Your task to perform on an android device: Go to CNN.com Image 0: 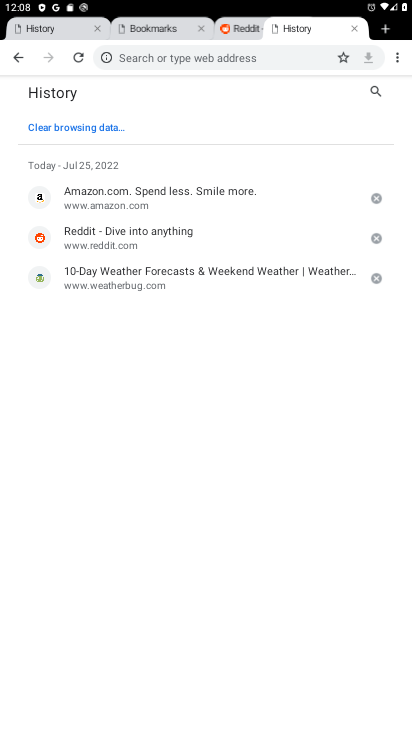
Step 0: press home button
Your task to perform on an android device: Go to CNN.com Image 1: 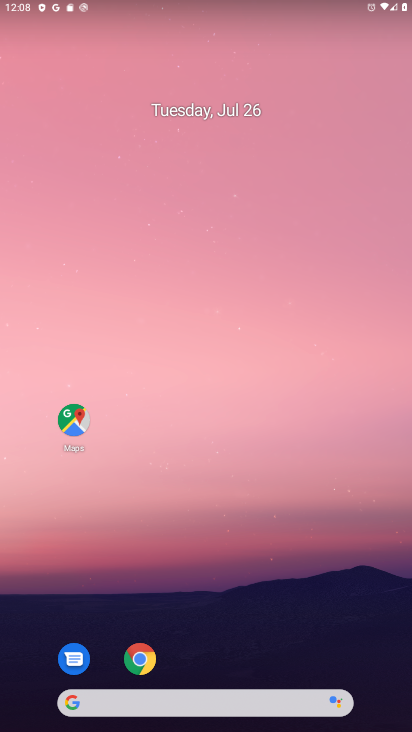
Step 1: click (140, 658)
Your task to perform on an android device: Go to CNN.com Image 2: 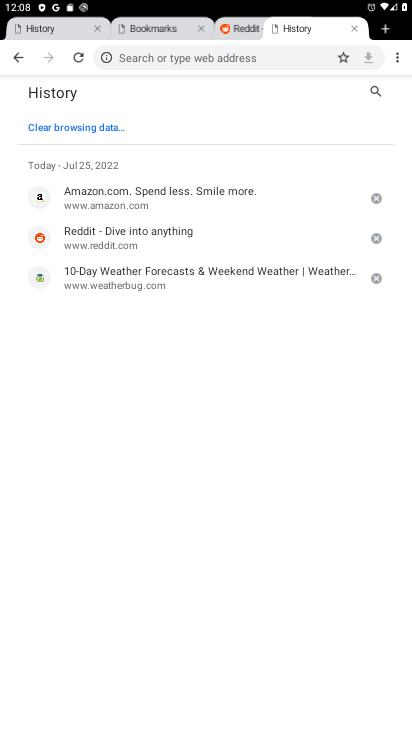
Step 2: click (399, 61)
Your task to perform on an android device: Go to CNN.com Image 3: 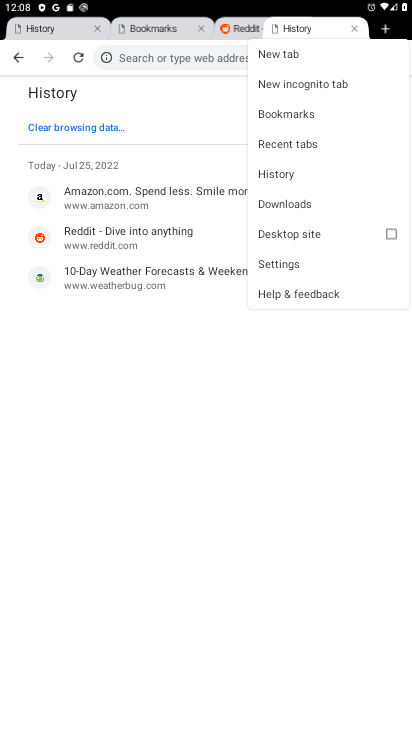
Step 3: click (277, 48)
Your task to perform on an android device: Go to CNN.com Image 4: 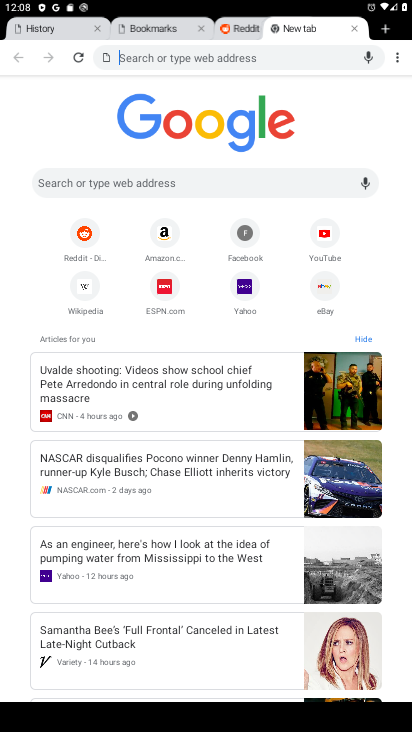
Step 4: click (120, 179)
Your task to perform on an android device: Go to CNN.com Image 5: 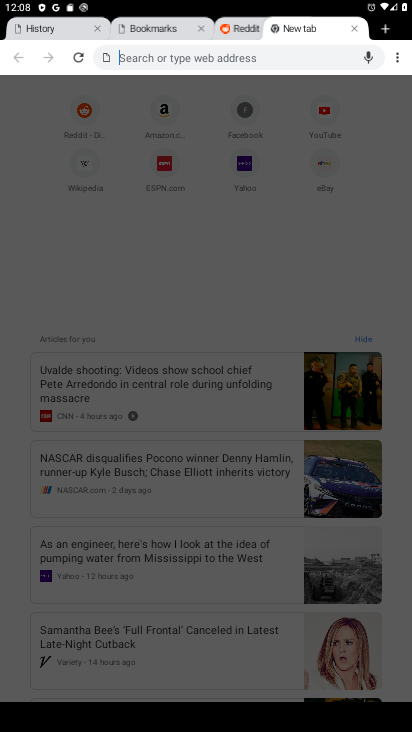
Step 5: type "cnn.com"
Your task to perform on an android device: Go to CNN.com Image 6: 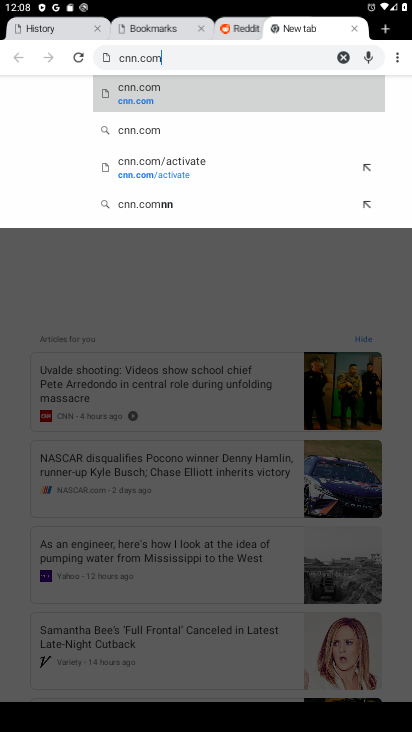
Step 6: click (125, 89)
Your task to perform on an android device: Go to CNN.com Image 7: 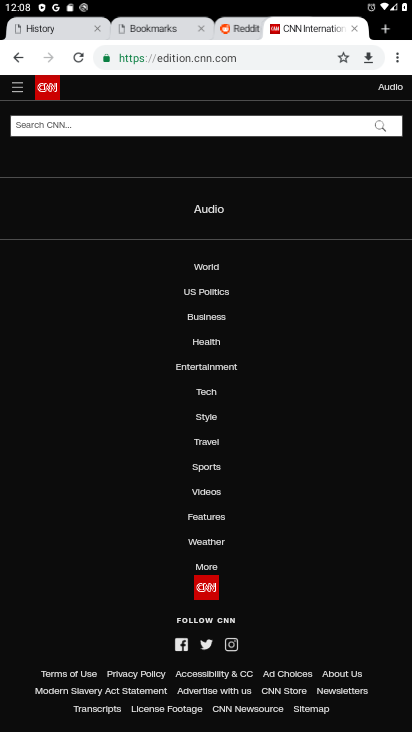
Step 7: task complete